Your task to perform on an android device: Go to Yahoo.com Image 0: 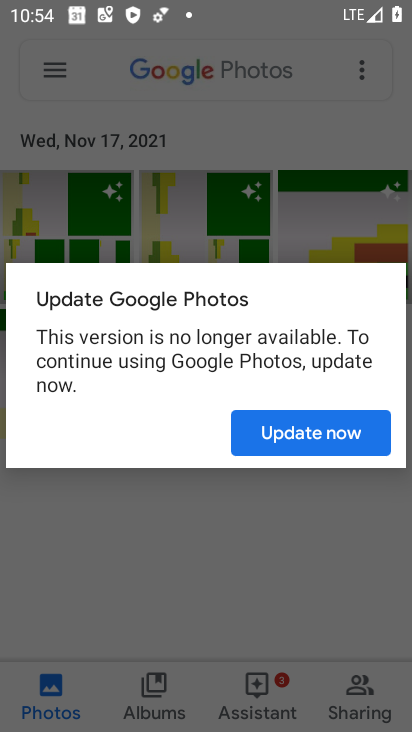
Step 0: press home button
Your task to perform on an android device: Go to Yahoo.com Image 1: 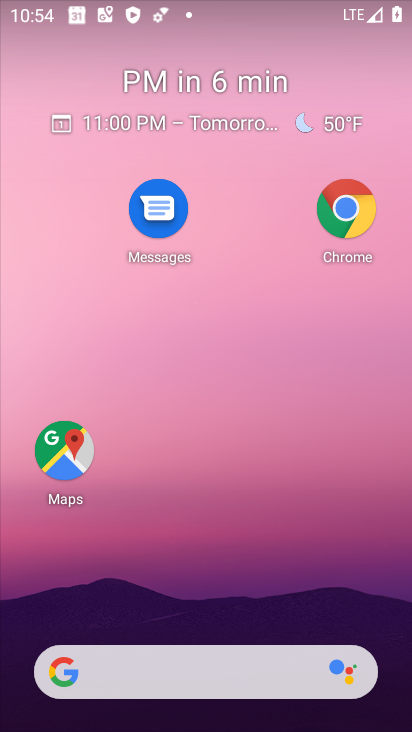
Step 1: drag from (201, 636) to (250, 53)
Your task to perform on an android device: Go to Yahoo.com Image 2: 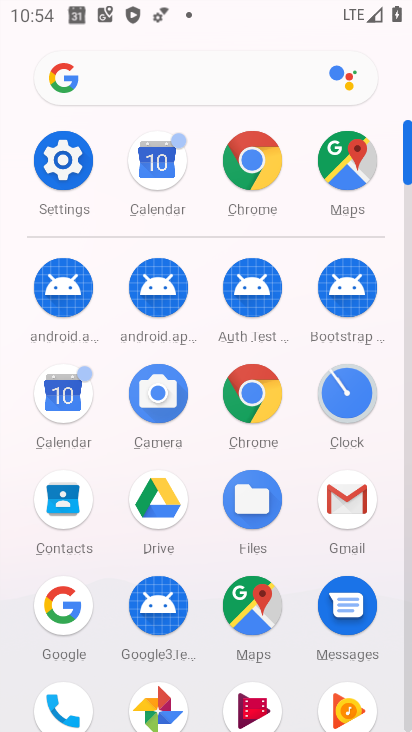
Step 2: click (260, 386)
Your task to perform on an android device: Go to Yahoo.com Image 3: 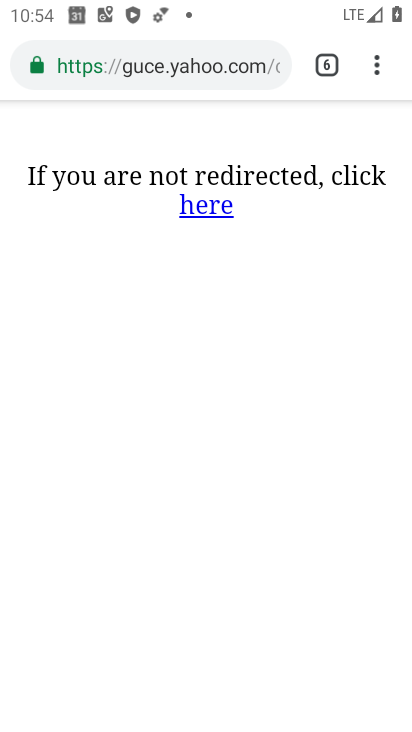
Step 3: click (322, 68)
Your task to perform on an android device: Go to Yahoo.com Image 4: 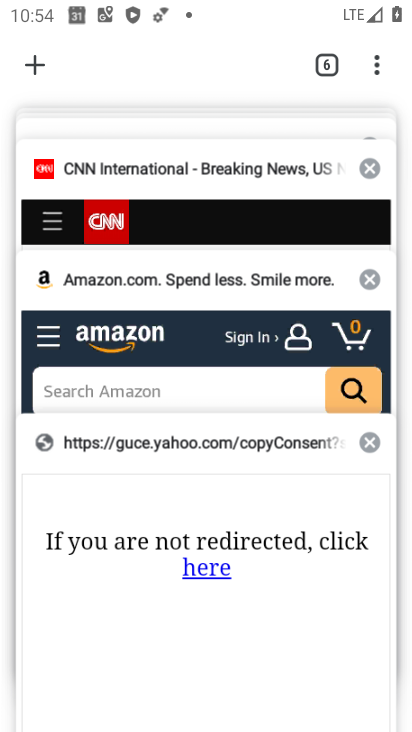
Step 4: click (40, 53)
Your task to perform on an android device: Go to Yahoo.com Image 5: 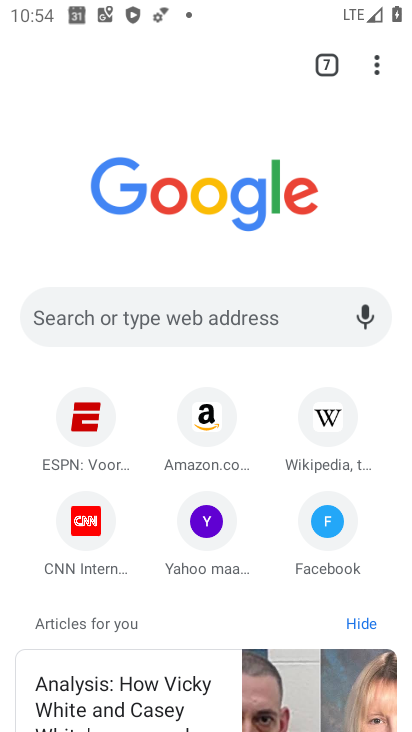
Step 5: click (195, 510)
Your task to perform on an android device: Go to Yahoo.com Image 6: 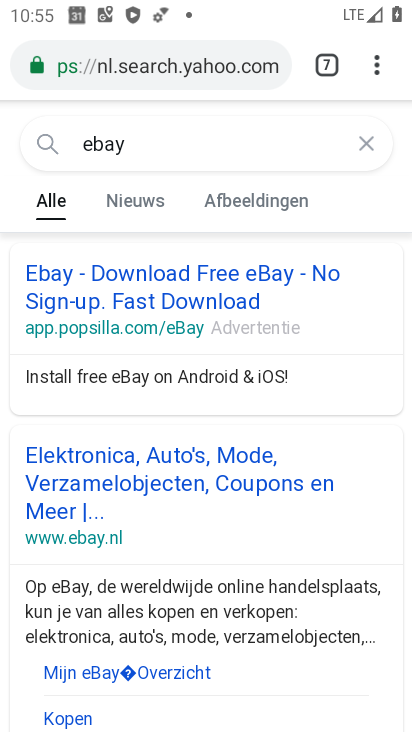
Step 6: task complete